Your task to perform on an android device: toggle priority inbox in the gmail app Image 0: 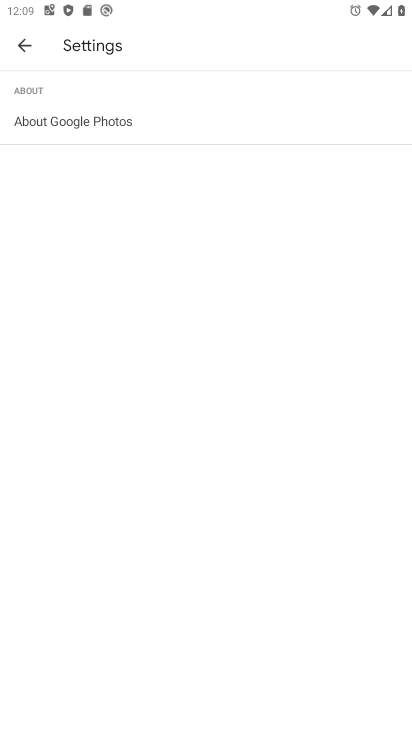
Step 0: press home button
Your task to perform on an android device: toggle priority inbox in the gmail app Image 1: 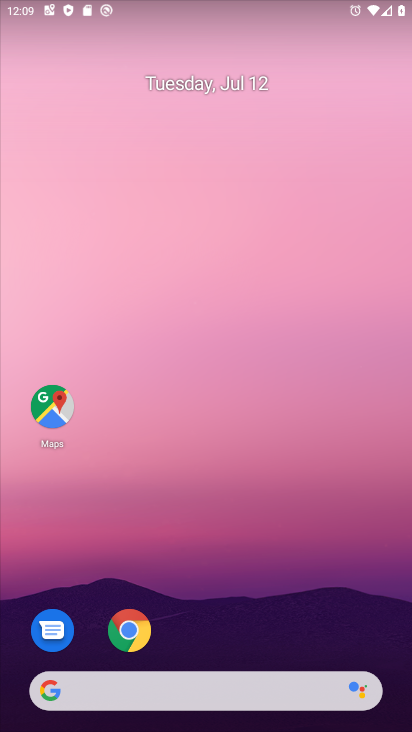
Step 1: drag from (166, 688) to (233, 3)
Your task to perform on an android device: toggle priority inbox in the gmail app Image 2: 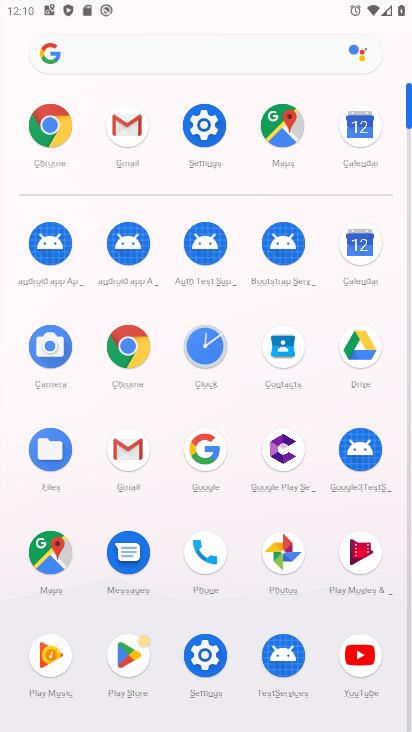
Step 2: click (125, 123)
Your task to perform on an android device: toggle priority inbox in the gmail app Image 3: 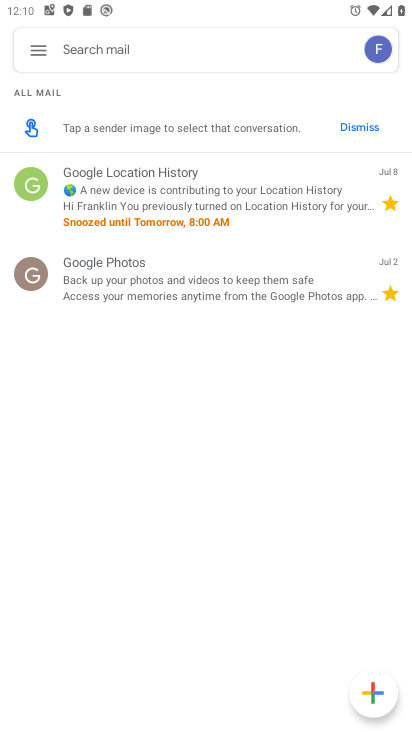
Step 3: click (40, 50)
Your task to perform on an android device: toggle priority inbox in the gmail app Image 4: 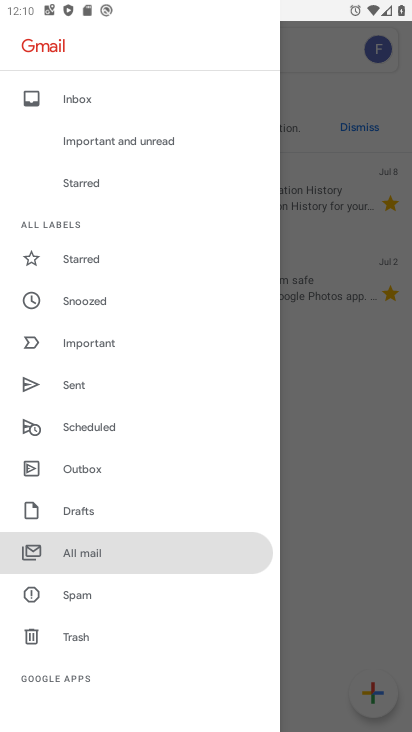
Step 4: drag from (80, 486) to (138, 373)
Your task to perform on an android device: toggle priority inbox in the gmail app Image 5: 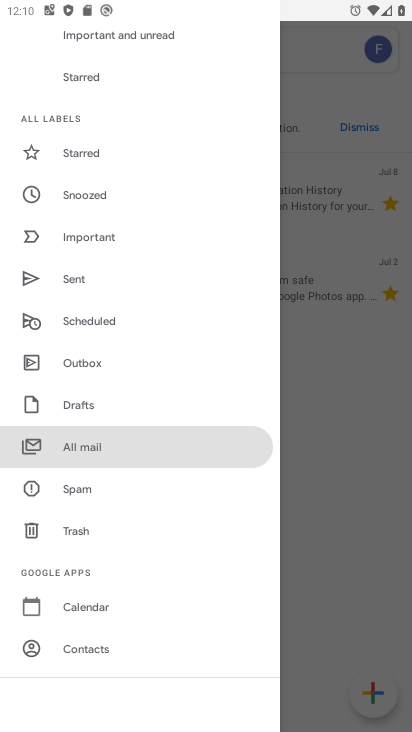
Step 5: drag from (88, 615) to (175, 502)
Your task to perform on an android device: toggle priority inbox in the gmail app Image 6: 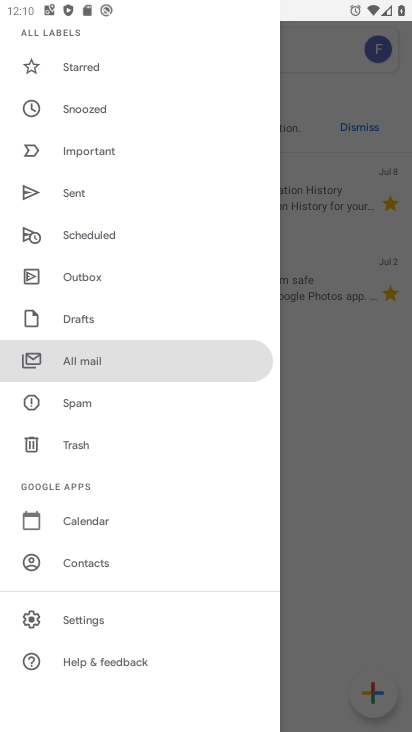
Step 6: click (99, 618)
Your task to perform on an android device: toggle priority inbox in the gmail app Image 7: 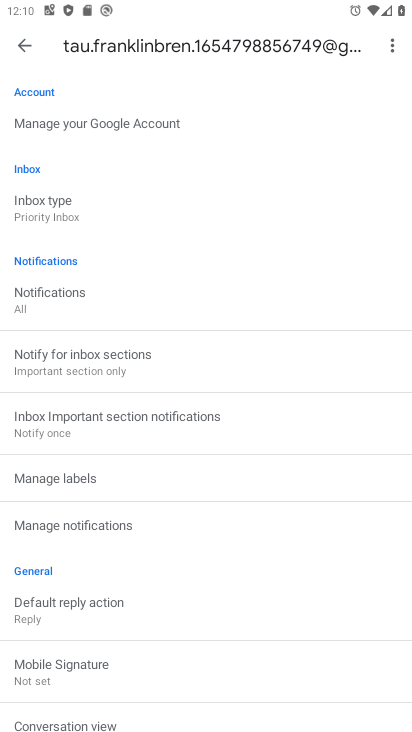
Step 7: click (77, 225)
Your task to perform on an android device: toggle priority inbox in the gmail app Image 8: 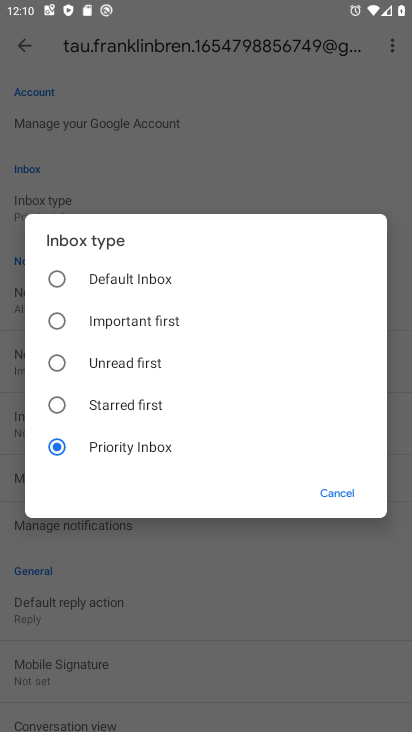
Step 8: click (67, 407)
Your task to perform on an android device: toggle priority inbox in the gmail app Image 9: 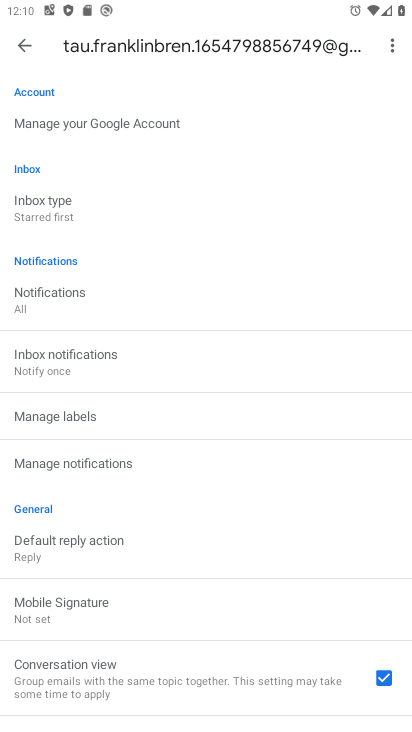
Step 9: task complete